Your task to perform on an android device: Open calendar and show me the fourth week of next month Image 0: 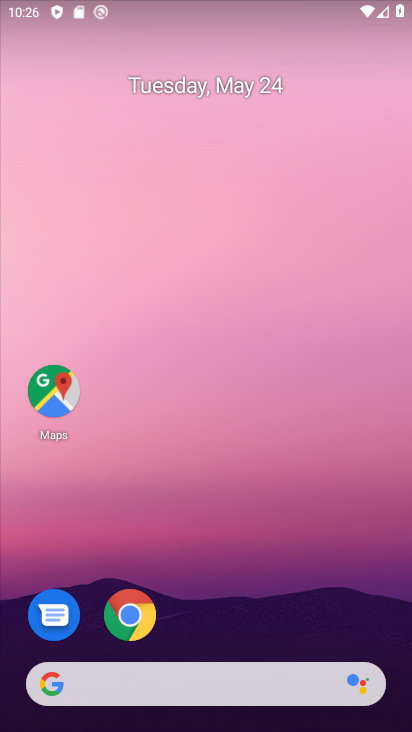
Step 0: drag from (297, 548) to (295, 106)
Your task to perform on an android device: Open calendar and show me the fourth week of next month Image 1: 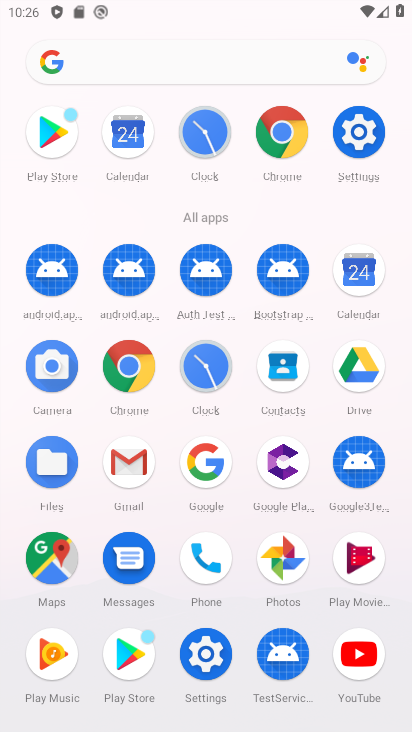
Step 1: click (349, 276)
Your task to perform on an android device: Open calendar and show me the fourth week of next month Image 2: 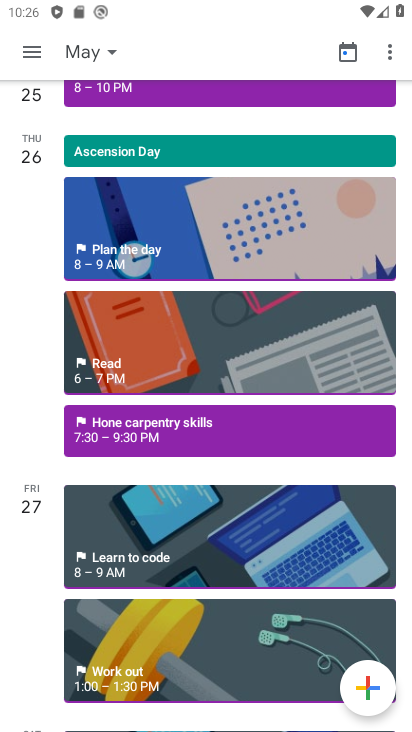
Step 2: click (36, 306)
Your task to perform on an android device: Open calendar and show me the fourth week of next month Image 3: 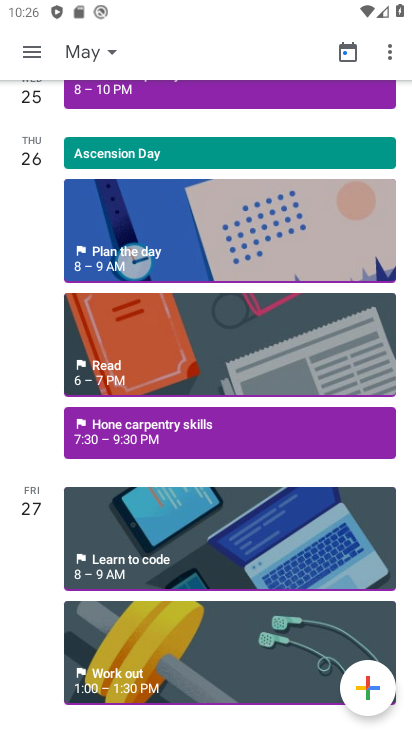
Step 3: drag from (83, 461) to (86, 164)
Your task to perform on an android device: Open calendar and show me the fourth week of next month Image 4: 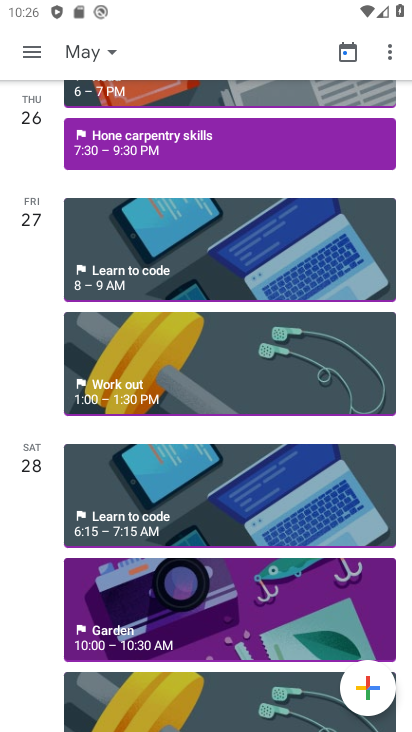
Step 4: drag from (25, 349) to (34, 37)
Your task to perform on an android device: Open calendar and show me the fourth week of next month Image 5: 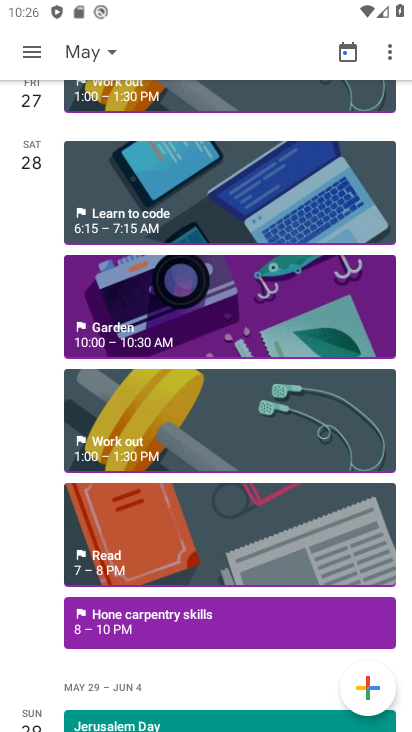
Step 5: drag from (107, 380) to (95, 71)
Your task to perform on an android device: Open calendar and show me the fourth week of next month Image 6: 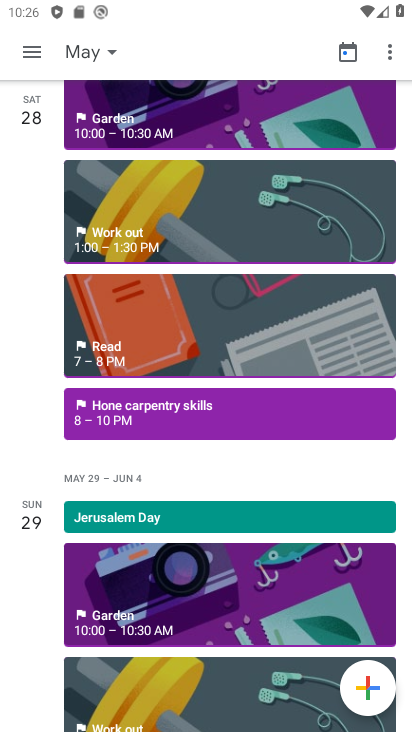
Step 6: drag from (134, 566) to (184, 101)
Your task to perform on an android device: Open calendar and show me the fourth week of next month Image 7: 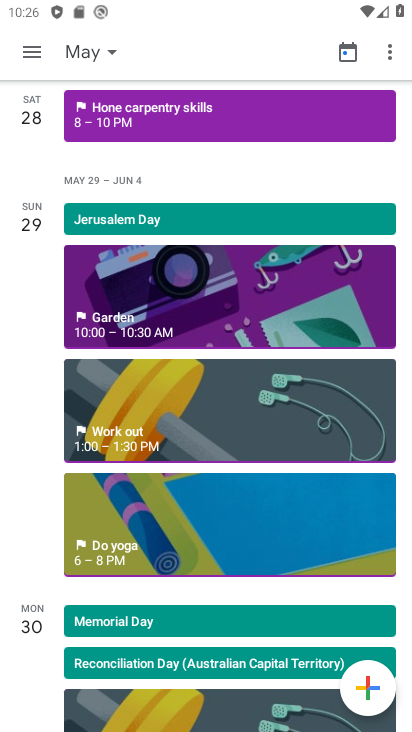
Step 7: drag from (162, 540) to (215, 136)
Your task to perform on an android device: Open calendar and show me the fourth week of next month Image 8: 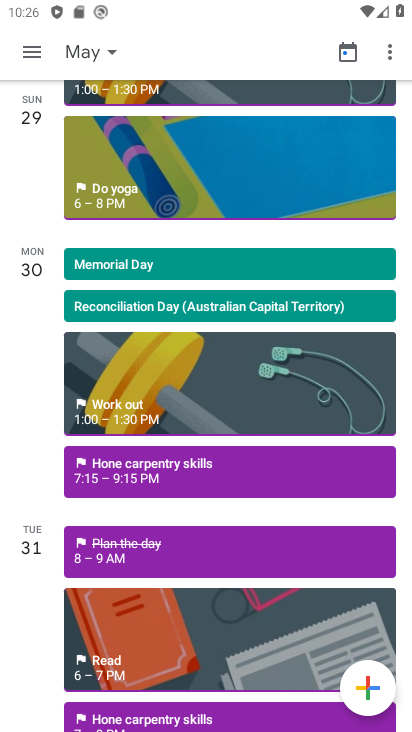
Step 8: click (44, 43)
Your task to perform on an android device: Open calendar and show me the fourth week of next month Image 9: 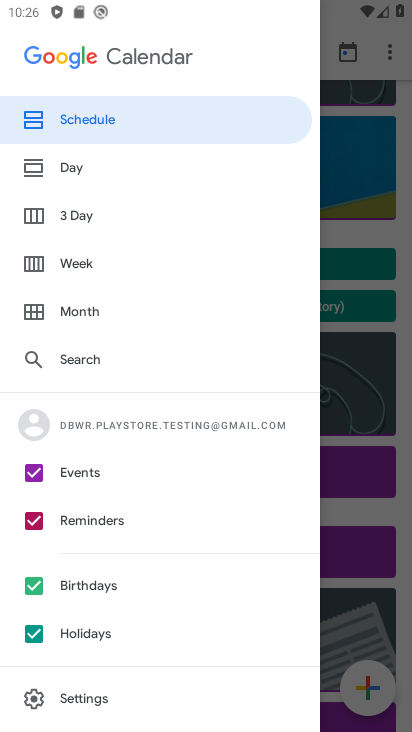
Step 9: click (116, 313)
Your task to perform on an android device: Open calendar and show me the fourth week of next month Image 10: 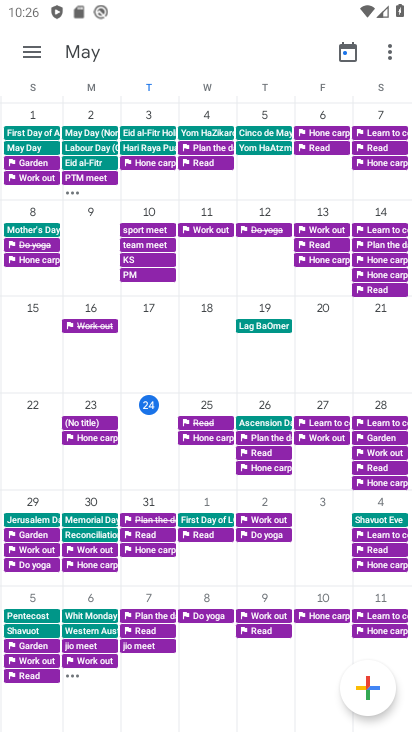
Step 10: task complete